Your task to perform on an android device: Open the calendar and show me this week's events Image 0: 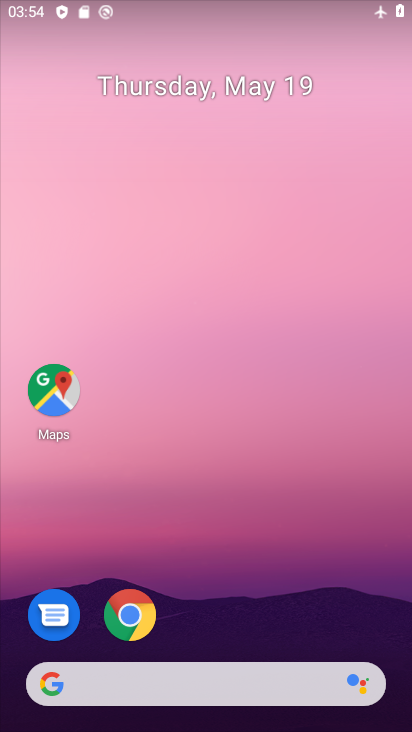
Step 0: drag from (315, 651) to (337, 1)
Your task to perform on an android device: Open the calendar and show me this week's events Image 1: 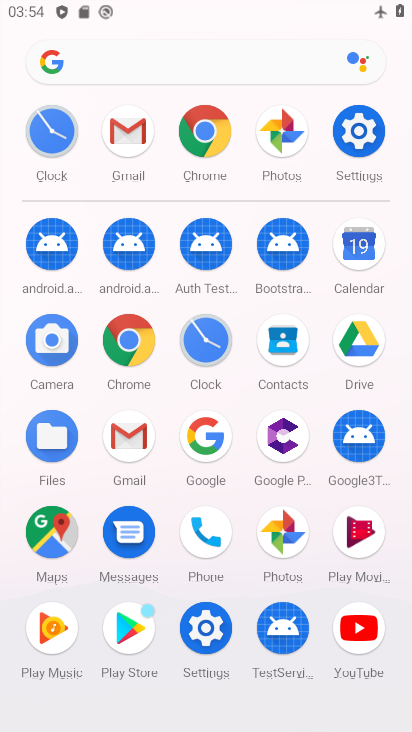
Step 1: click (365, 253)
Your task to perform on an android device: Open the calendar and show me this week's events Image 2: 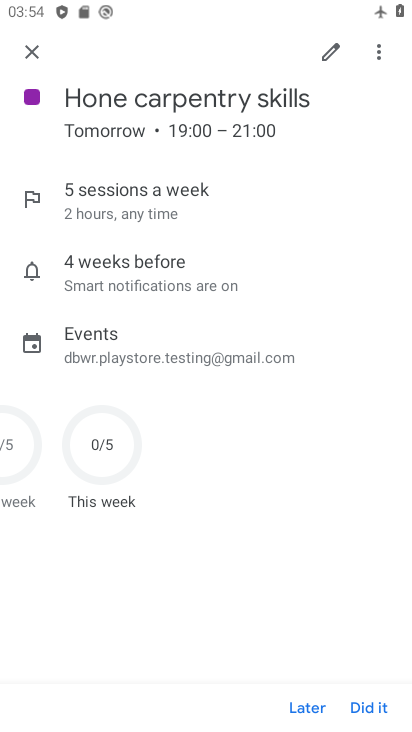
Step 2: click (32, 50)
Your task to perform on an android device: Open the calendar and show me this week's events Image 3: 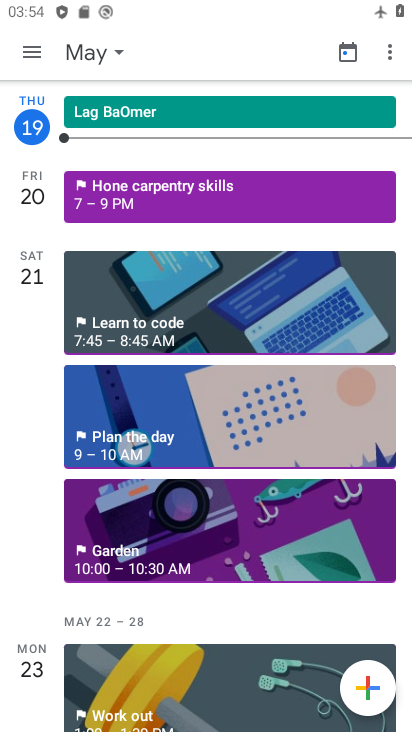
Step 3: click (115, 51)
Your task to perform on an android device: Open the calendar and show me this week's events Image 4: 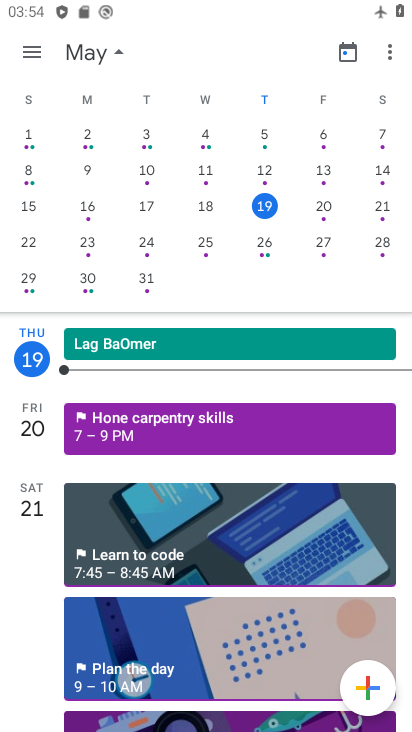
Step 4: click (26, 54)
Your task to perform on an android device: Open the calendar and show me this week's events Image 5: 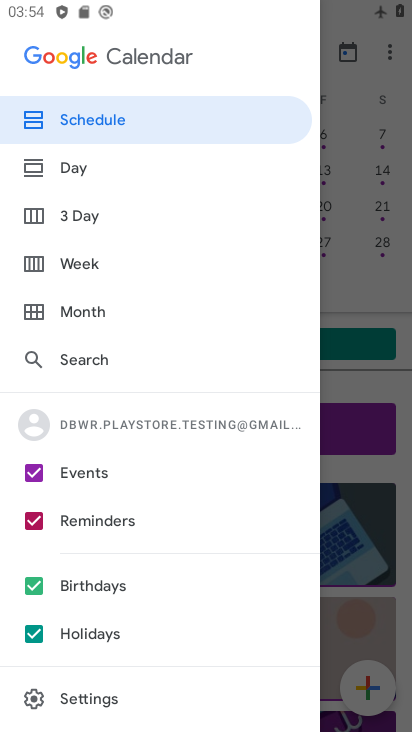
Step 5: click (35, 519)
Your task to perform on an android device: Open the calendar and show me this week's events Image 6: 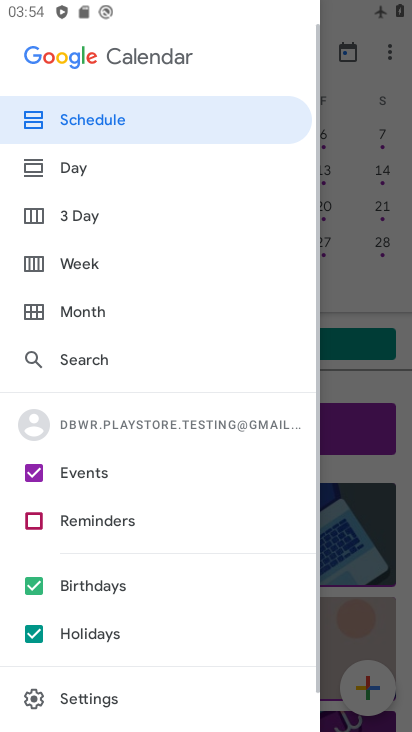
Step 6: click (25, 594)
Your task to perform on an android device: Open the calendar and show me this week's events Image 7: 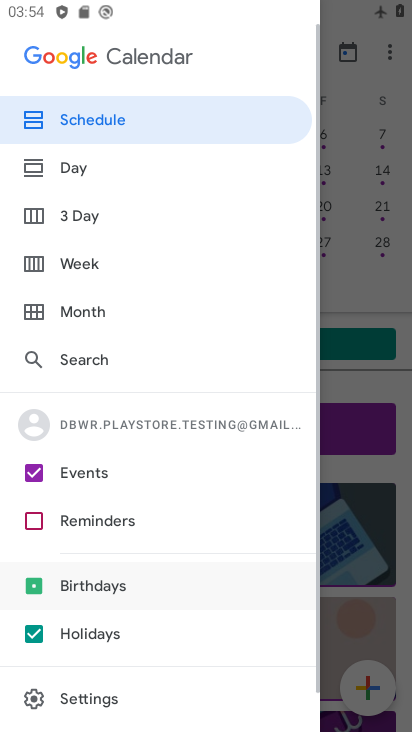
Step 7: click (22, 637)
Your task to perform on an android device: Open the calendar and show me this week's events Image 8: 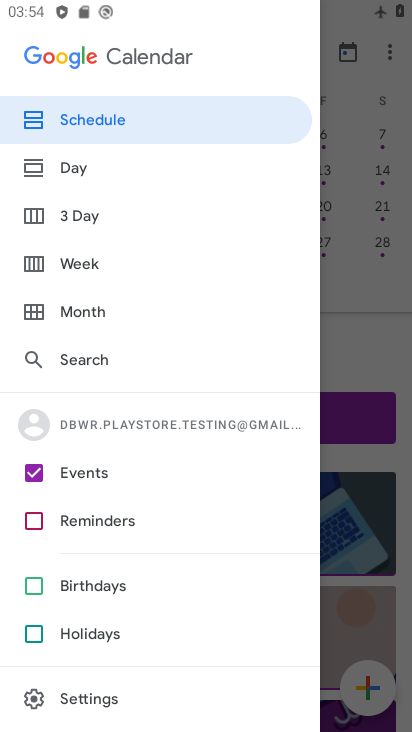
Step 8: click (42, 259)
Your task to perform on an android device: Open the calendar and show me this week's events Image 9: 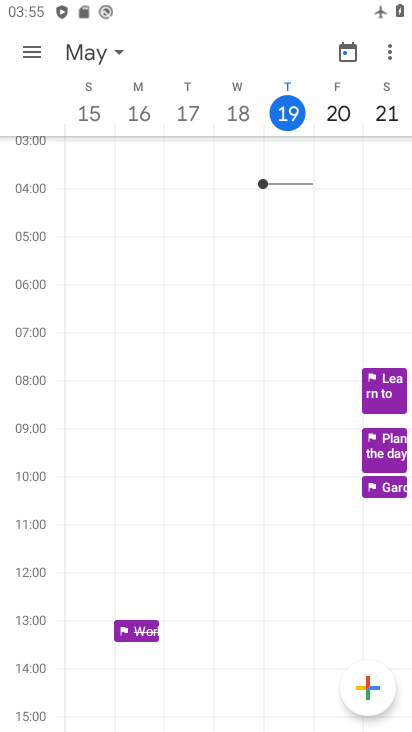
Step 9: task complete